Your task to perform on an android device: Open settings on Google Maps Image 0: 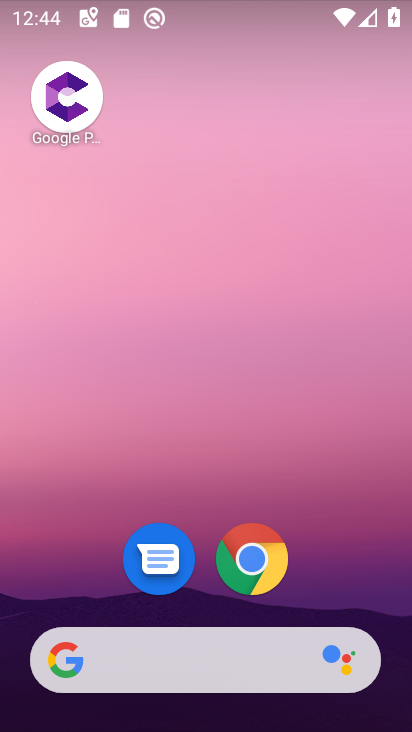
Step 0: drag from (331, 544) to (306, 146)
Your task to perform on an android device: Open settings on Google Maps Image 1: 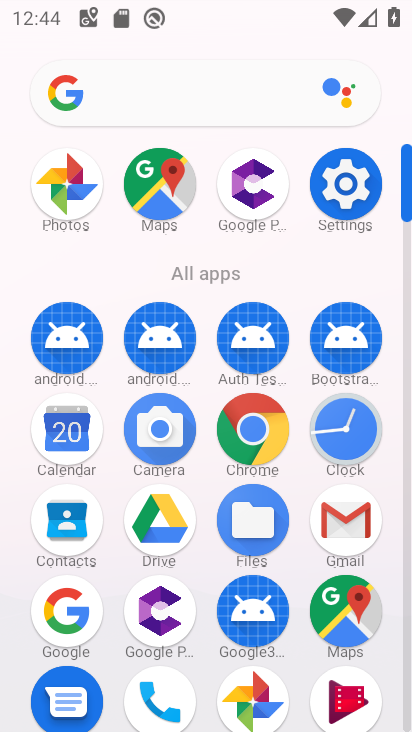
Step 1: click (345, 611)
Your task to perform on an android device: Open settings on Google Maps Image 2: 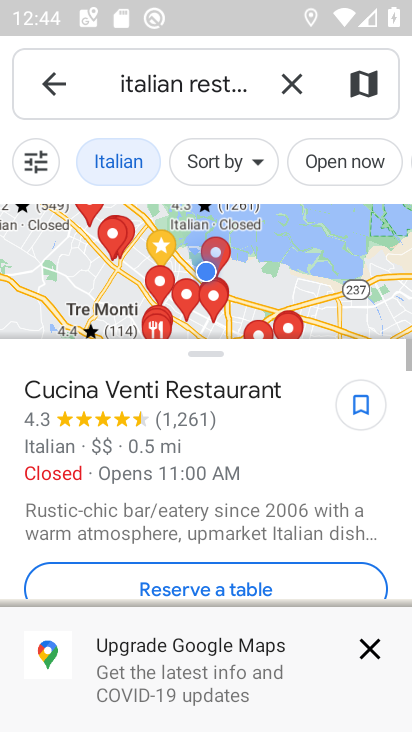
Step 2: click (293, 82)
Your task to perform on an android device: Open settings on Google Maps Image 3: 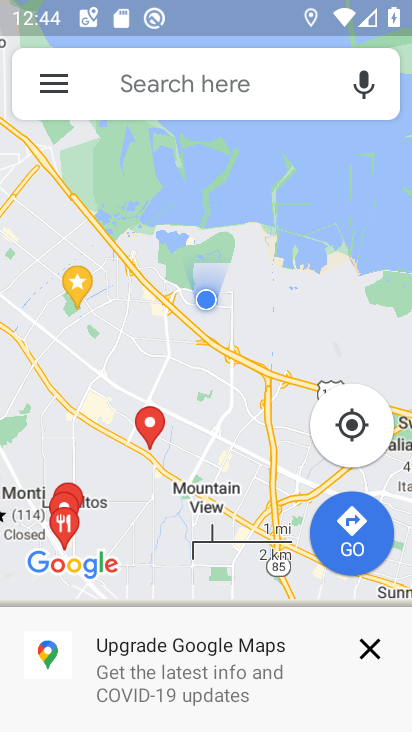
Step 3: click (40, 82)
Your task to perform on an android device: Open settings on Google Maps Image 4: 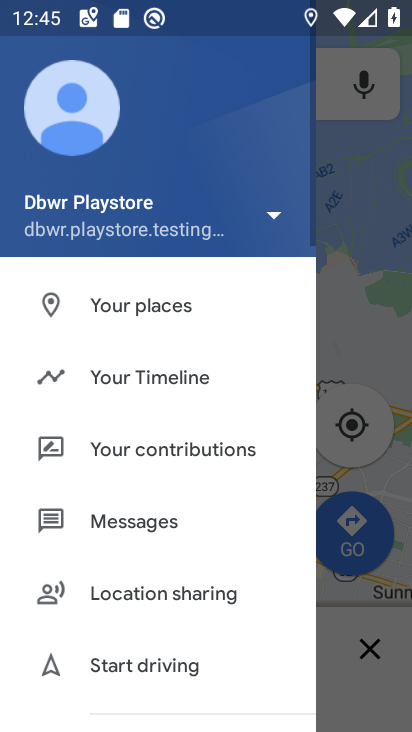
Step 4: drag from (184, 618) to (214, 257)
Your task to perform on an android device: Open settings on Google Maps Image 5: 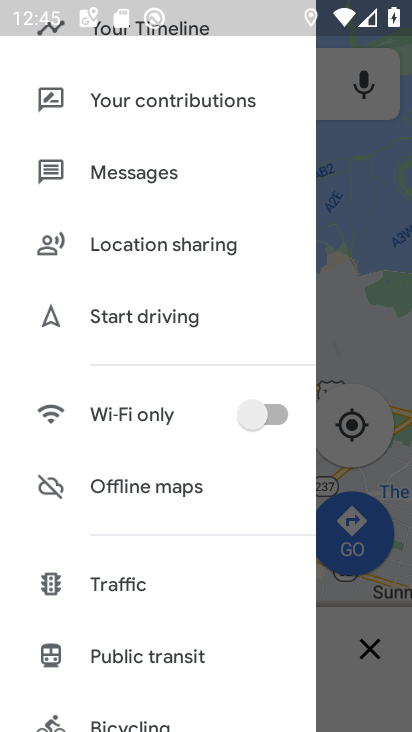
Step 5: drag from (180, 656) to (170, 115)
Your task to perform on an android device: Open settings on Google Maps Image 6: 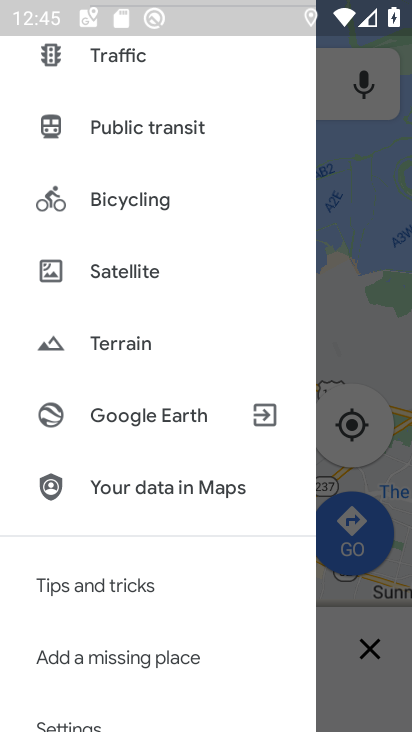
Step 6: drag from (169, 702) to (166, 403)
Your task to perform on an android device: Open settings on Google Maps Image 7: 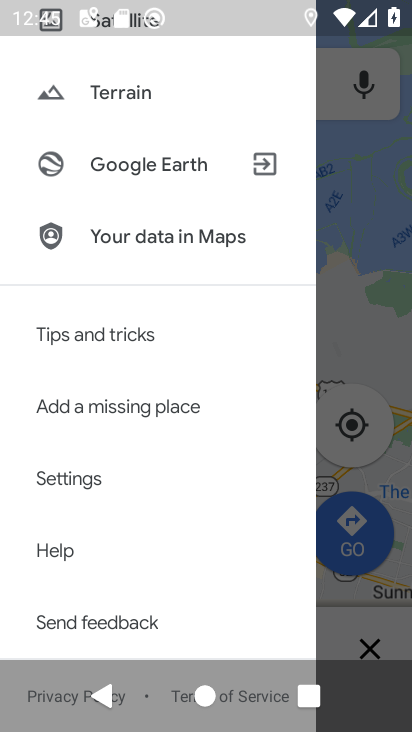
Step 7: click (62, 483)
Your task to perform on an android device: Open settings on Google Maps Image 8: 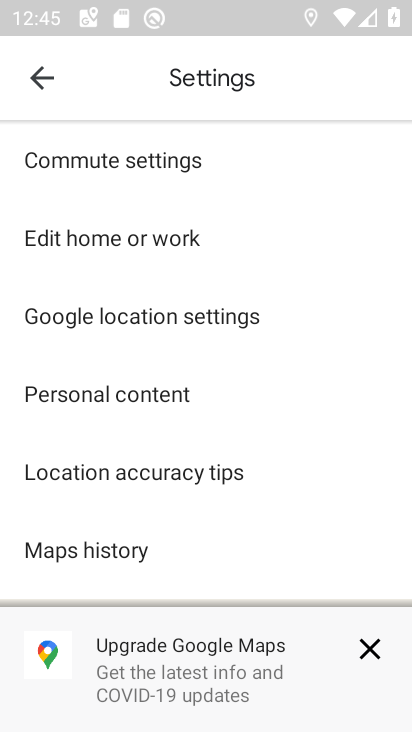
Step 8: task complete